Your task to perform on an android device: turn off improve location accuracy Image 0: 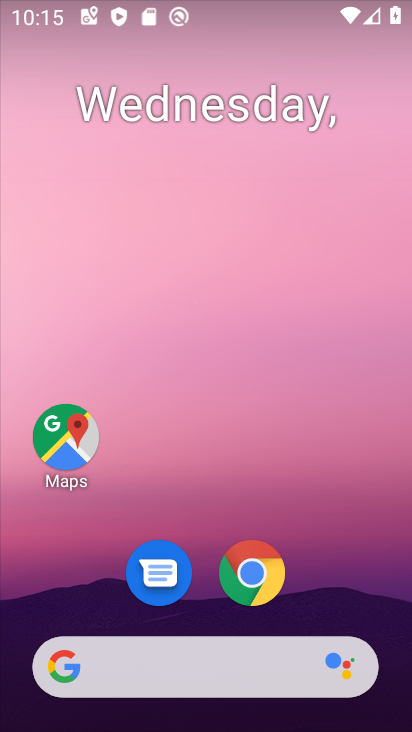
Step 0: drag from (208, 632) to (223, 230)
Your task to perform on an android device: turn off improve location accuracy Image 1: 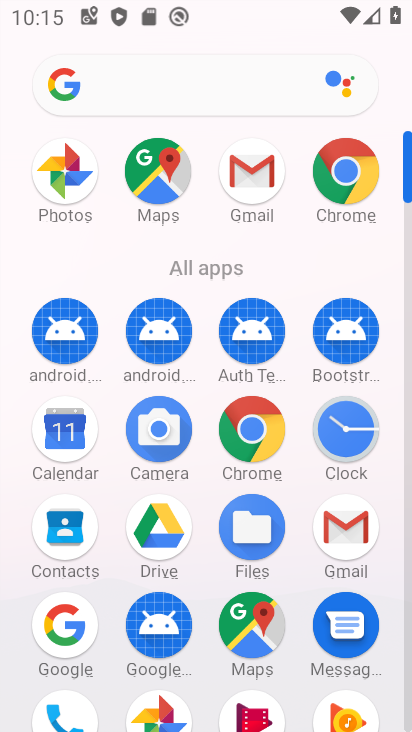
Step 1: drag from (119, 589) to (128, 216)
Your task to perform on an android device: turn off improve location accuracy Image 2: 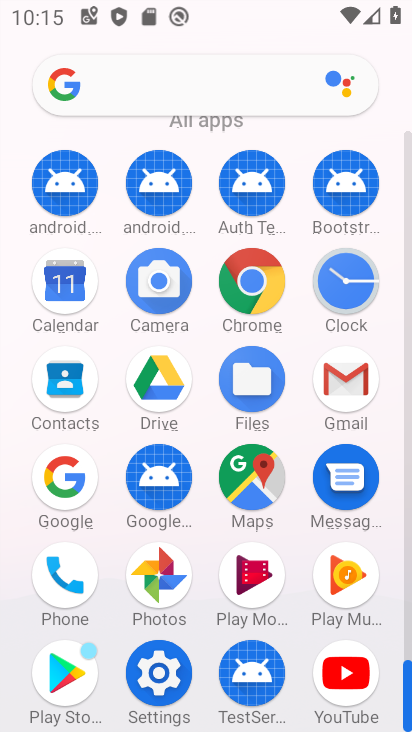
Step 2: click (164, 673)
Your task to perform on an android device: turn off improve location accuracy Image 3: 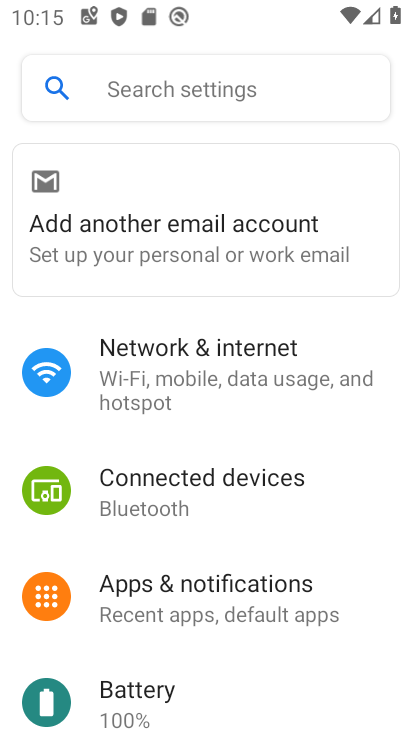
Step 3: drag from (178, 704) to (233, 318)
Your task to perform on an android device: turn off improve location accuracy Image 4: 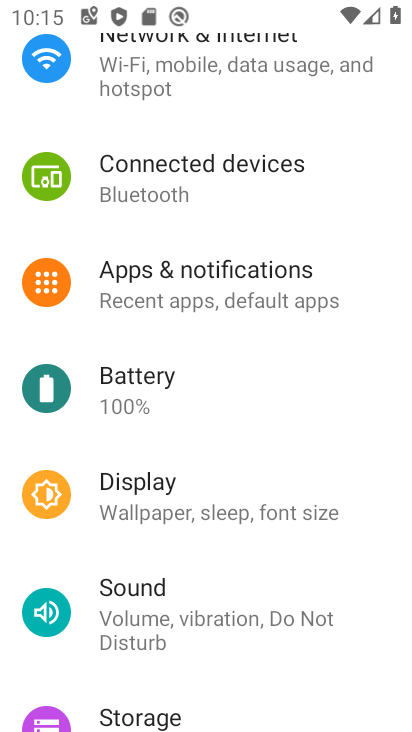
Step 4: drag from (151, 677) to (207, 267)
Your task to perform on an android device: turn off improve location accuracy Image 5: 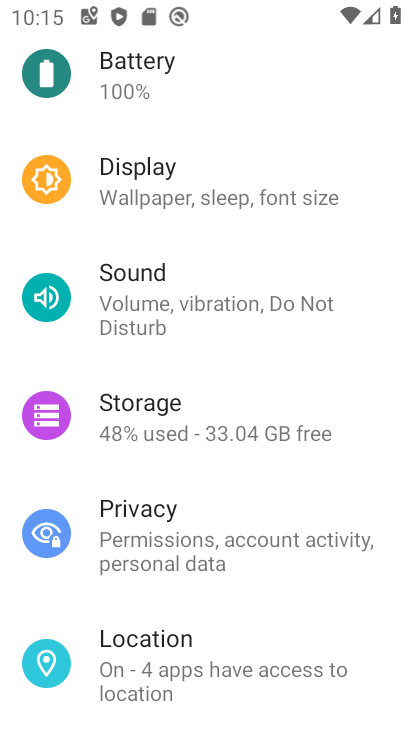
Step 5: click (136, 660)
Your task to perform on an android device: turn off improve location accuracy Image 6: 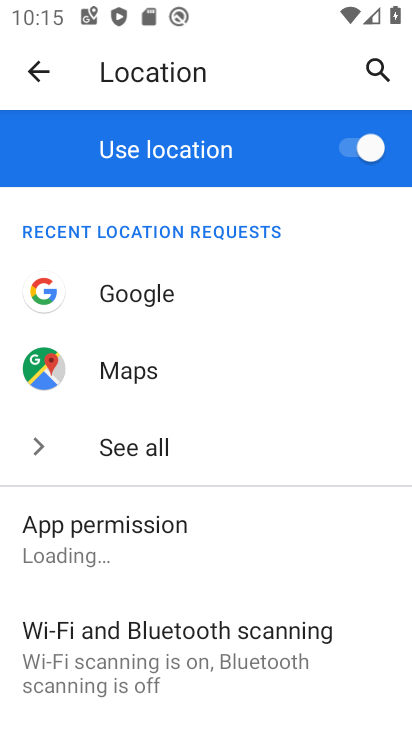
Step 6: drag from (139, 701) to (192, 351)
Your task to perform on an android device: turn off improve location accuracy Image 7: 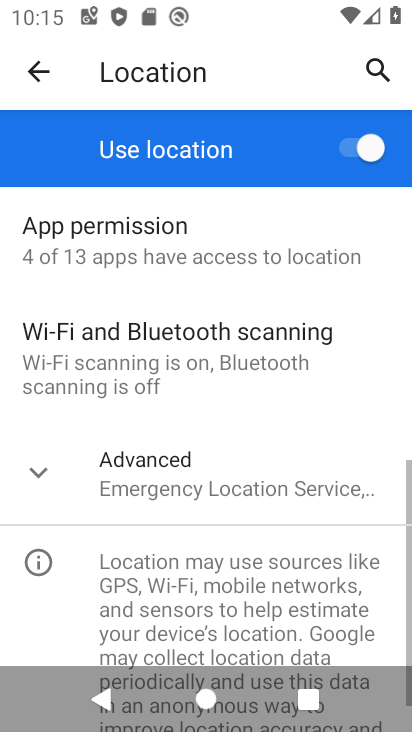
Step 7: click (154, 460)
Your task to perform on an android device: turn off improve location accuracy Image 8: 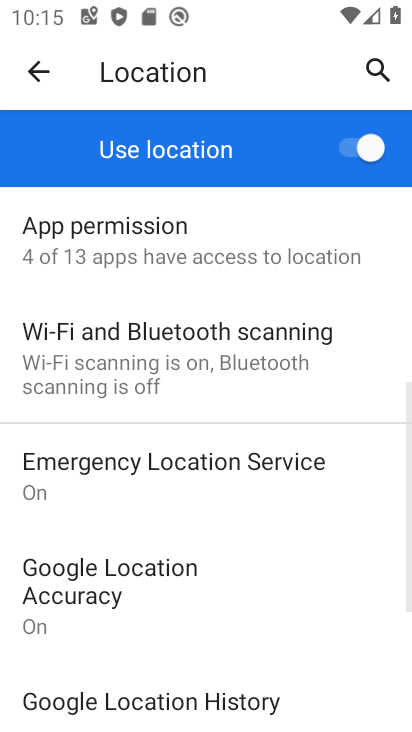
Step 8: drag from (174, 659) to (230, 291)
Your task to perform on an android device: turn off improve location accuracy Image 9: 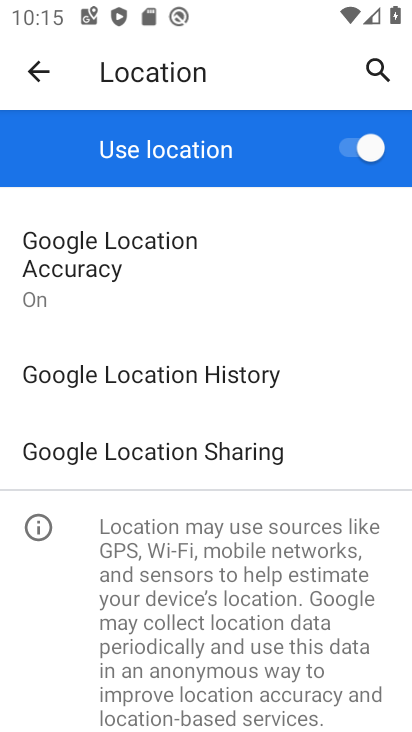
Step 9: click (84, 266)
Your task to perform on an android device: turn off improve location accuracy Image 10: 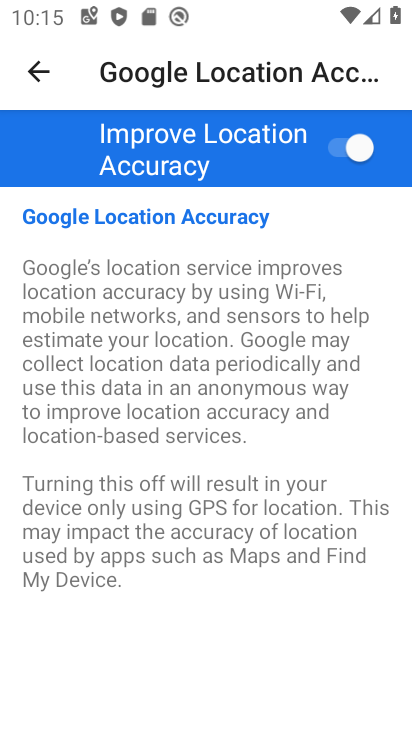
Step 10: click (345, 146)
Your task to perform on an android device: turn off improve location accuracy Image 11: 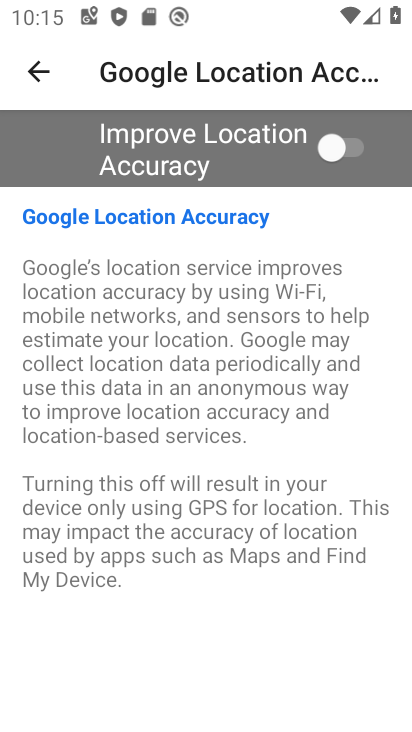
Step 11: task complete